Your task to perform on an android device: Open privacy settings Image 0: 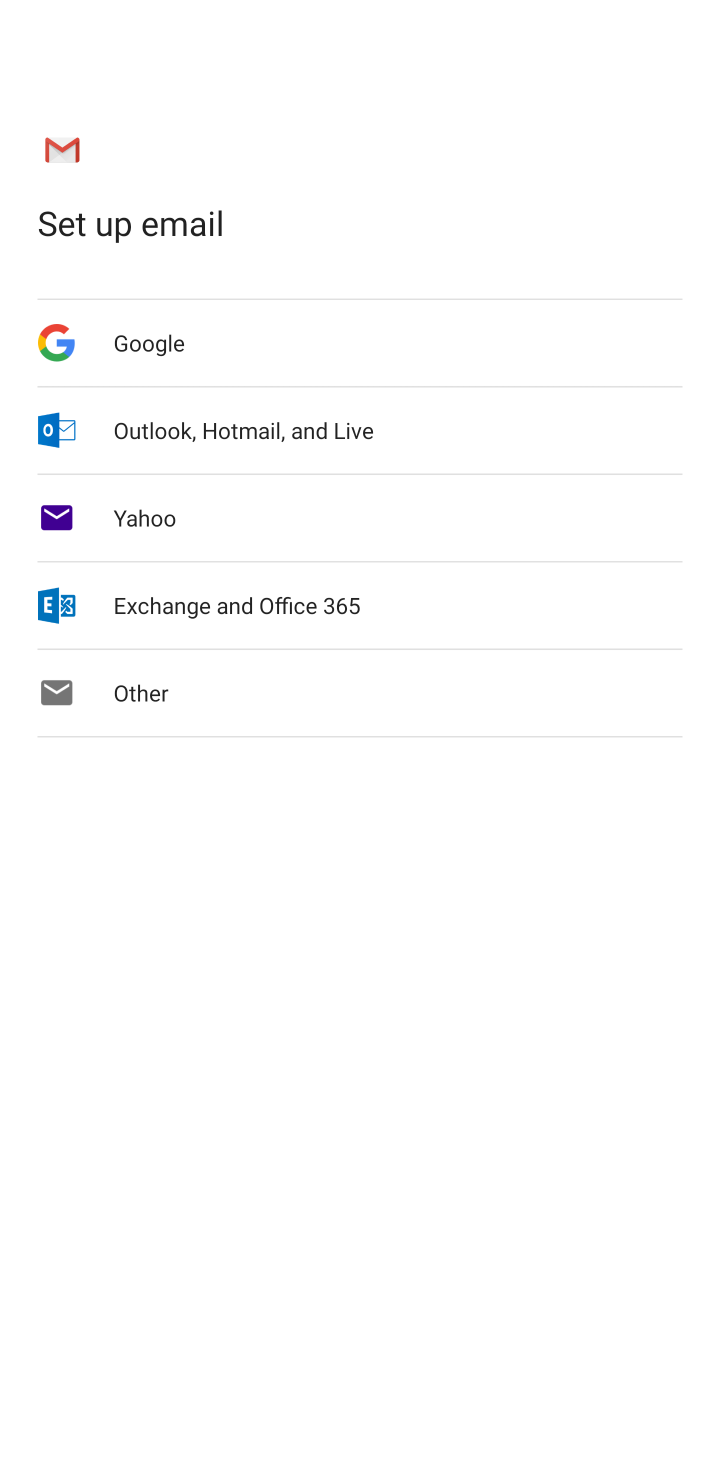
Step 0: press home button
Your task to perform on an android device: Open privacy settings Image 1: 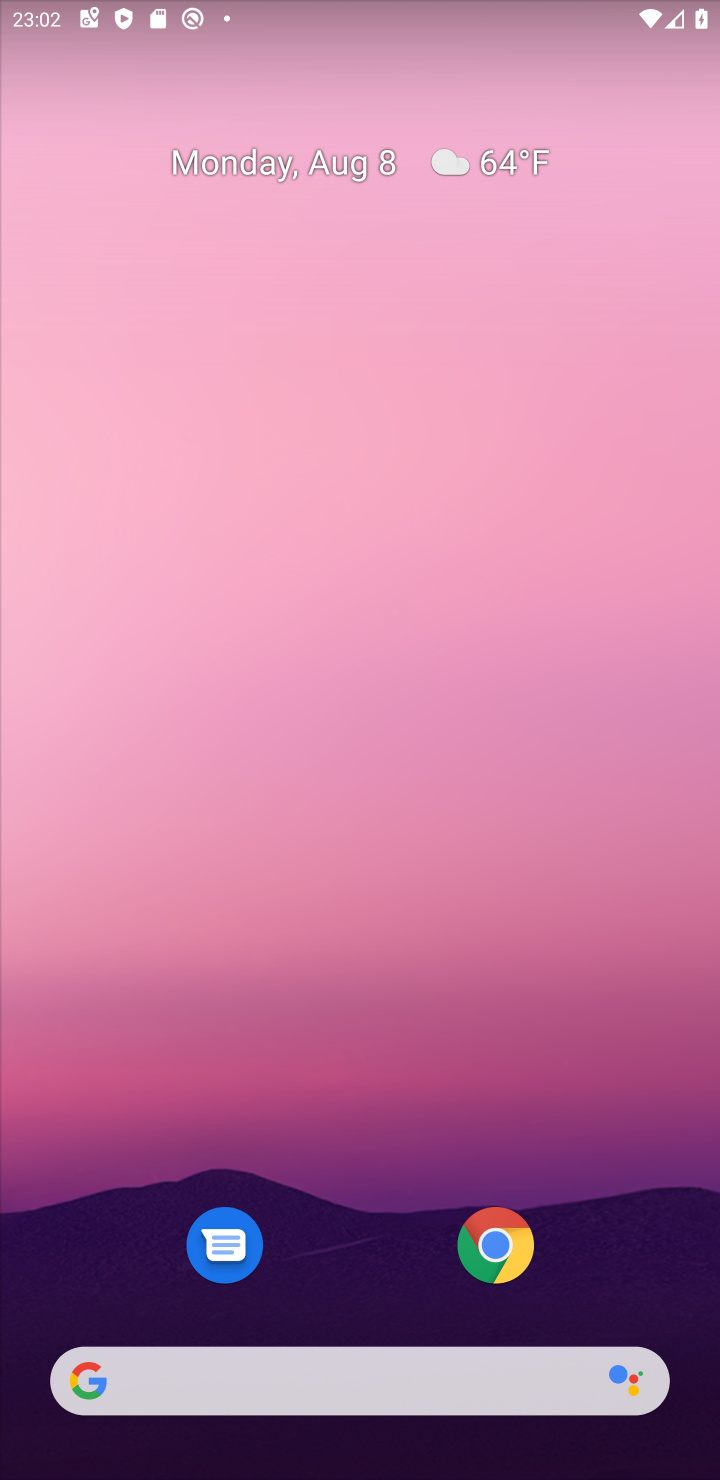
Step 1: drag from (380, 1160) to (365, 802)
Your task to perform on an android device: Open privacy settings Image 2: 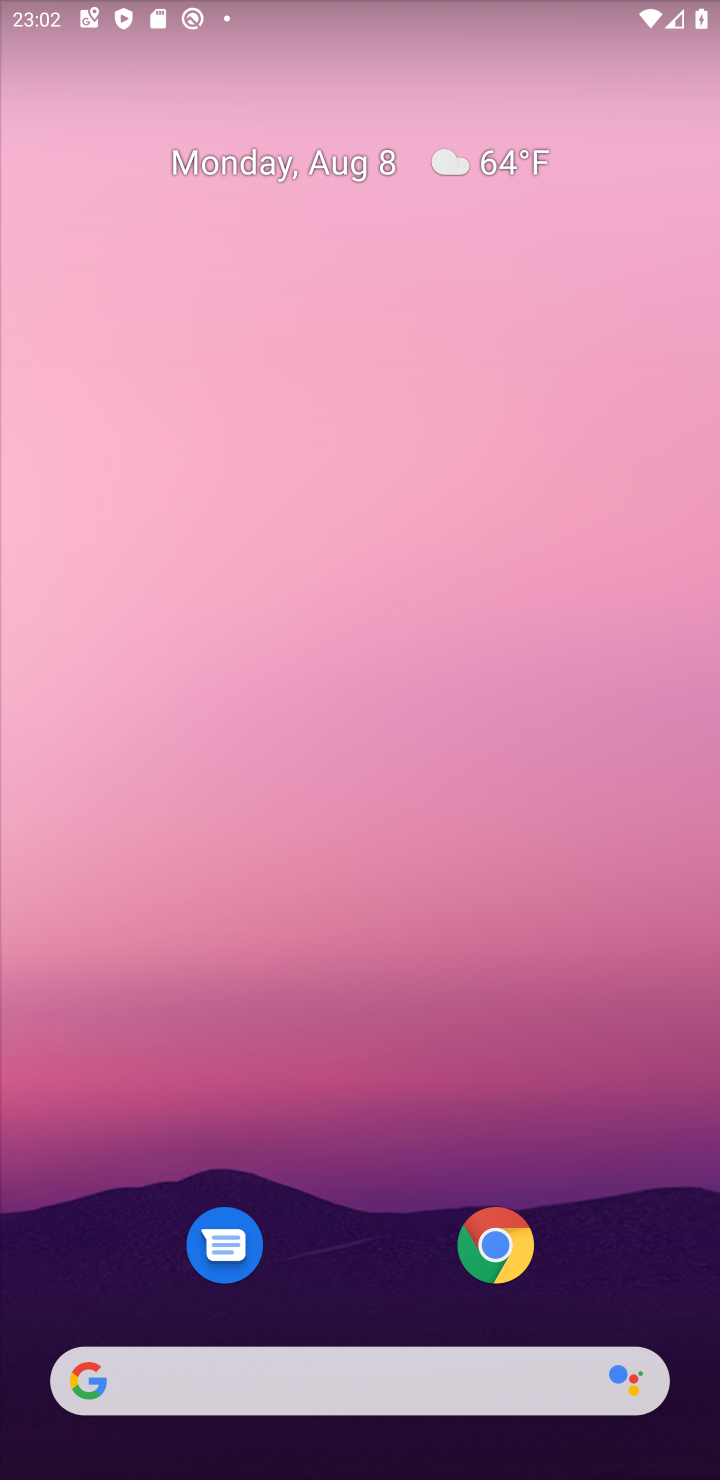
Step 2: drag from (323, 826) to (212, 300)
Your task to perform on an android device: Open privacy settings Image 3: 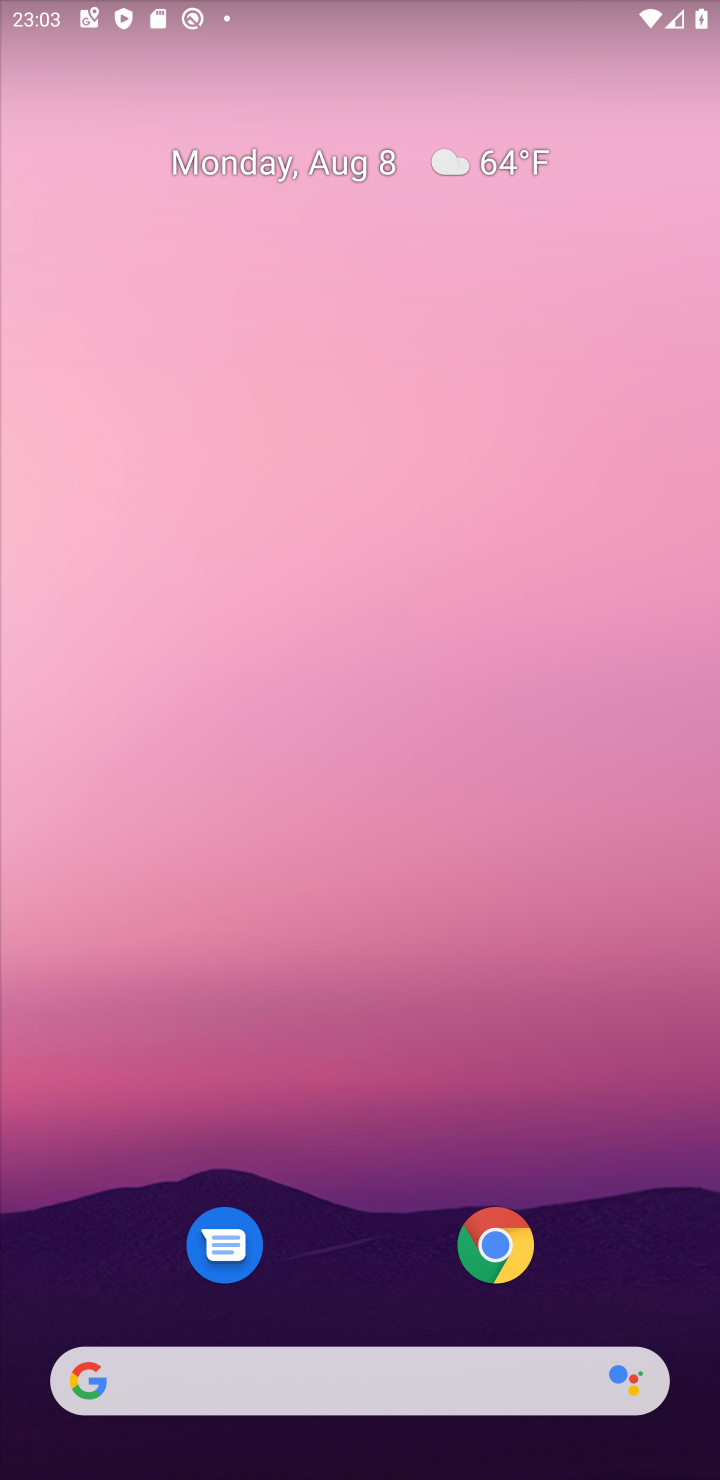
Step 3: drag from (387, 1182) to (263, 318)
Your task to perform on an android device: Open privacy settings Image 4: 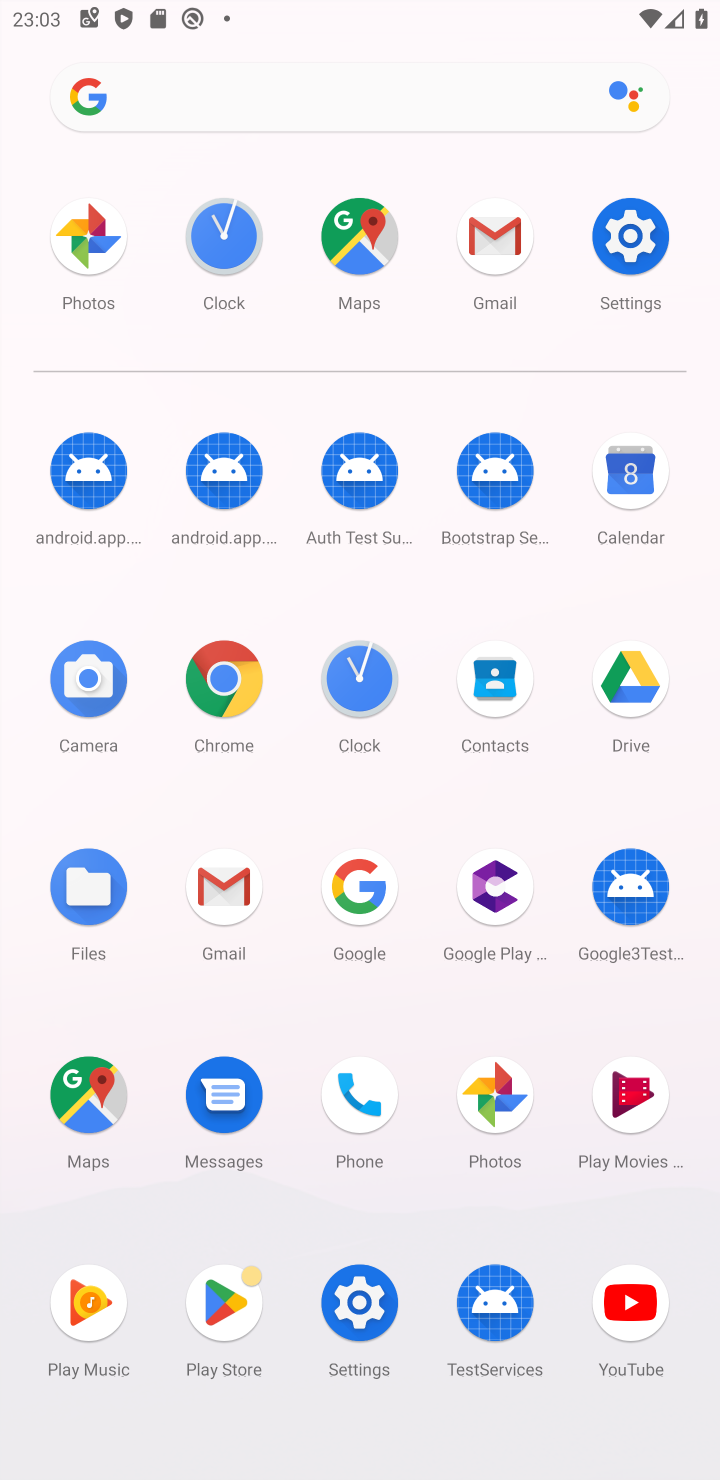
Step 4: click (634, 218)
Your task to perform on an android device: Open privacy settings Image 5: 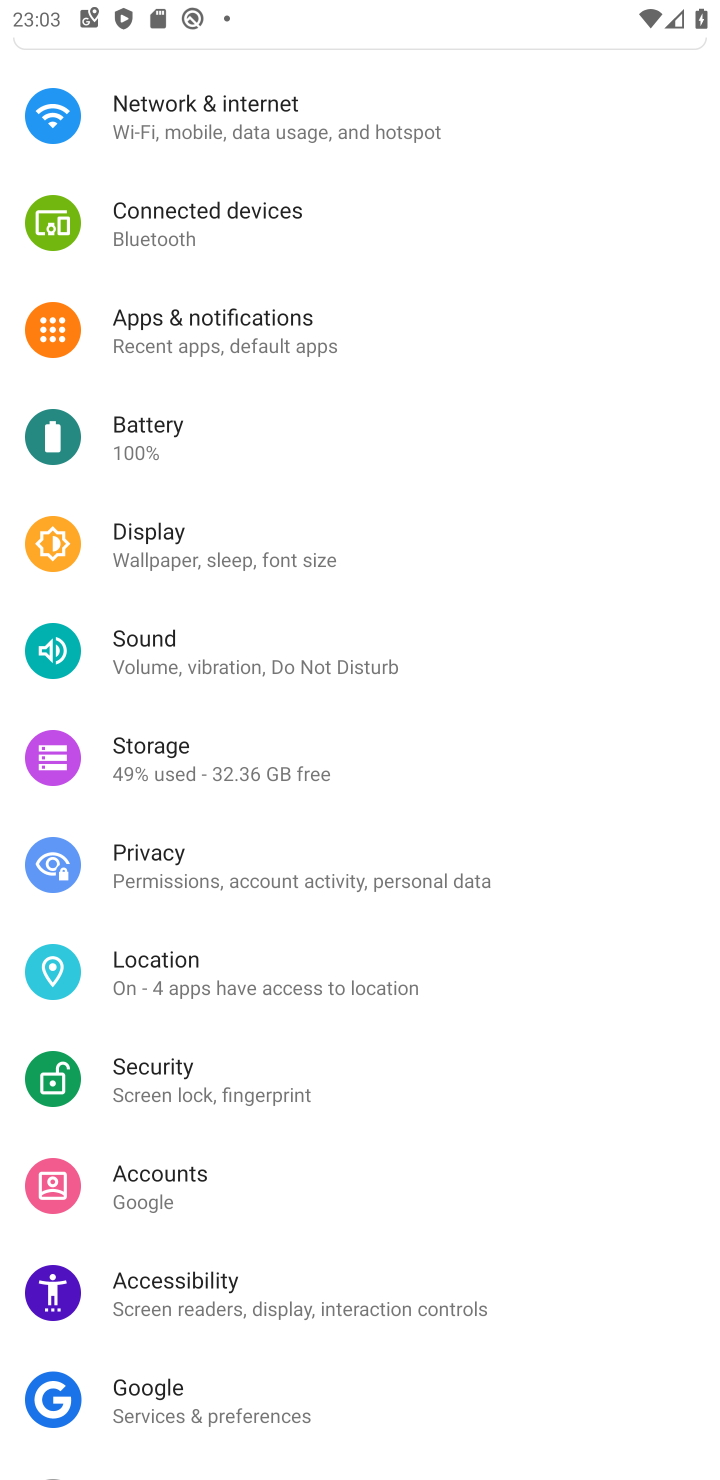
Step 5: click (163, 853)
Your task to perform on an android device: Open privacy settings Image 6: 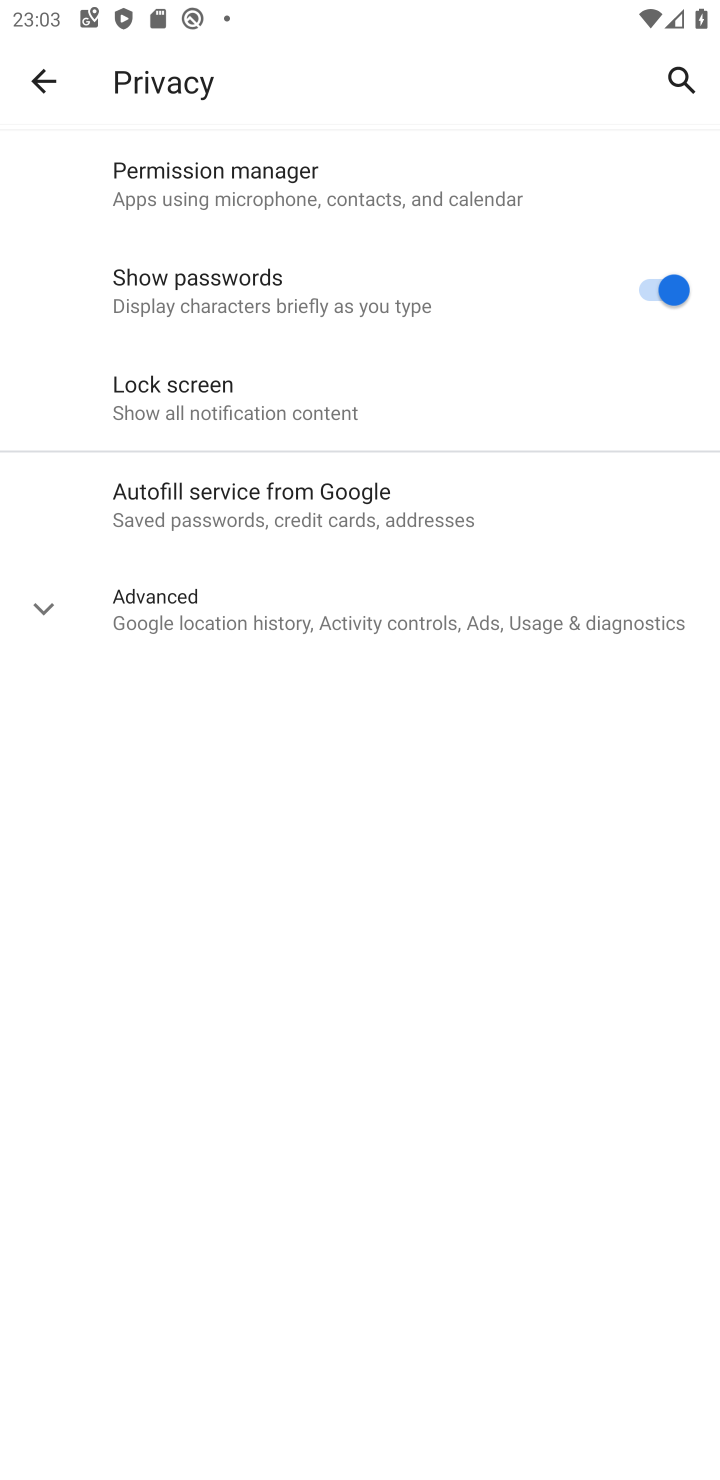
Step 6: task complete